Your task to perform on an android device: Go to Wikipedia Image 0: 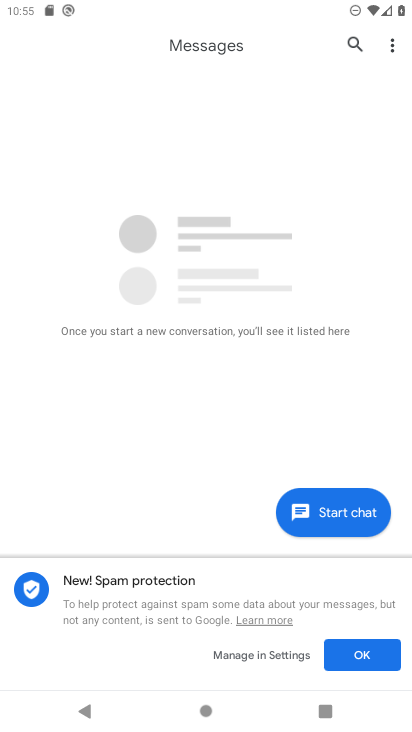
Step 0: press home button
Your task to perform on an android device: Go to Wikipedia Image 1: 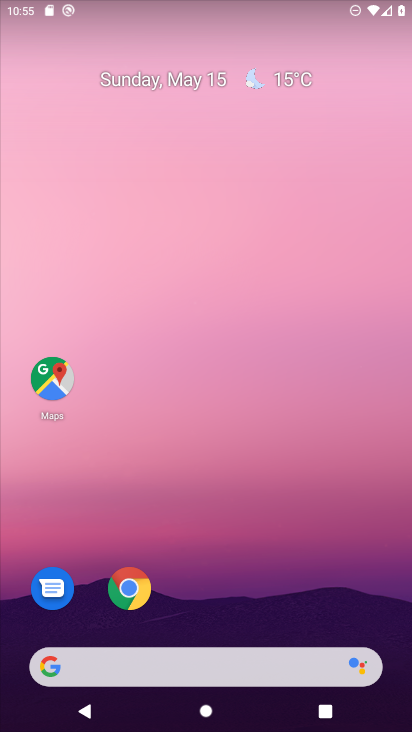
Step 1: drag from (249, 601) to (241, 6)
Your task to perform on an android device: Go to Wikipedia Image 2: 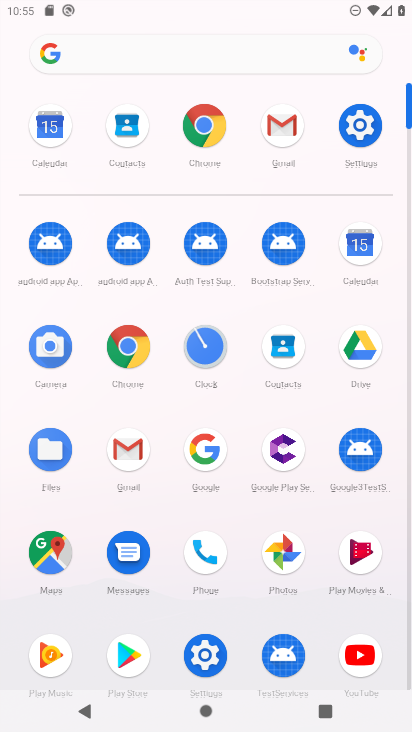
Step 2: click (199, 143)
Your task to perform on an android device: Go to Wikipedia Image 3: 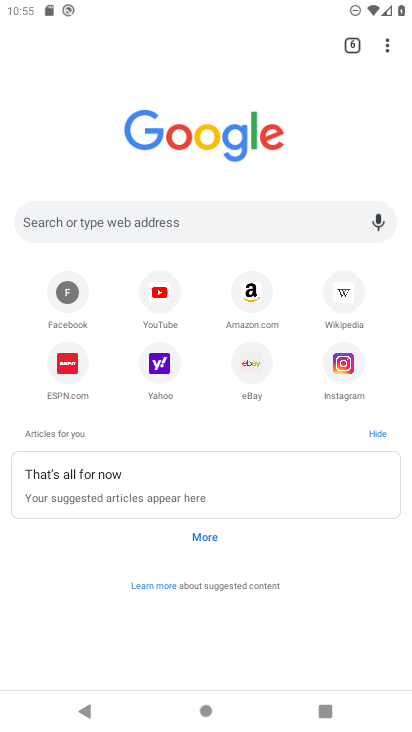
Step 3: click (343, 295)
Your task to perform on an android device: Go to Wikipedia Image 4: 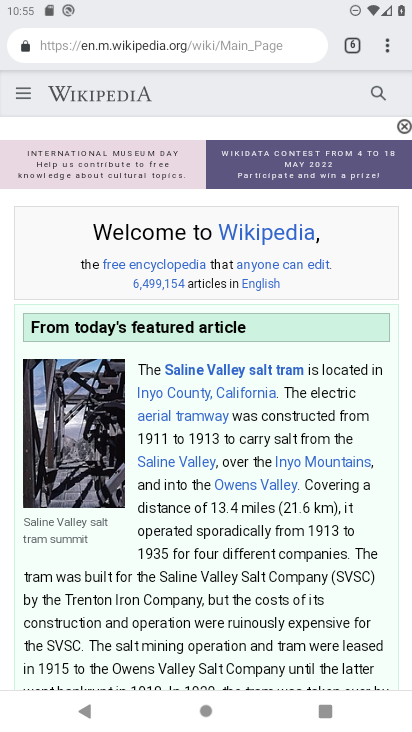
Step 4: task complete